Your task to perform on an android device: turn off location history Image 0: 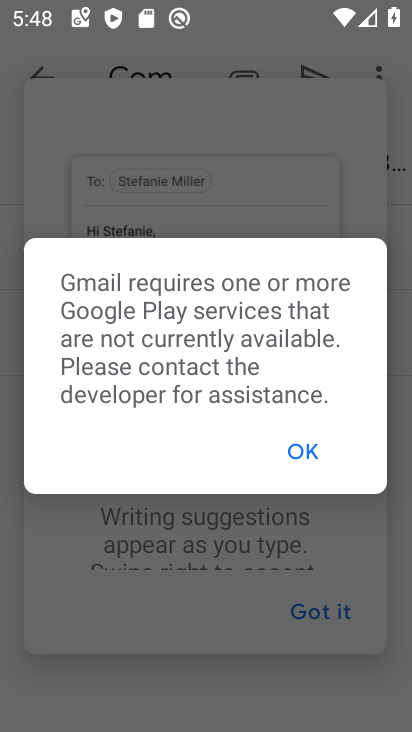
Step 0: press home button
Your task to perform on an android device: turn off location history Image 1: 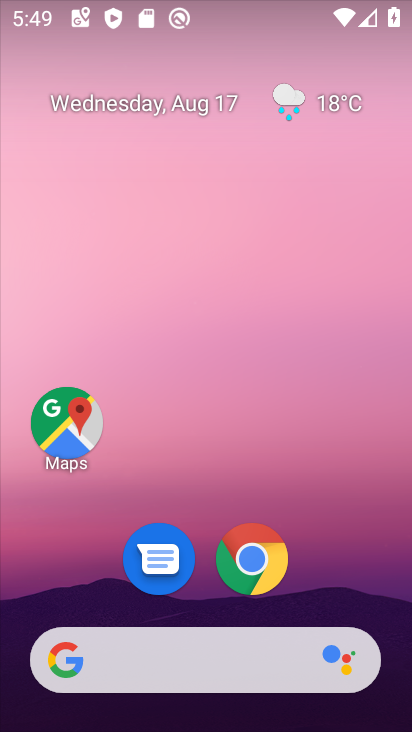
Step 1: drag from (219, 652) to (0, 180)
Your task to perform on an android device: turn off location history Image 2: 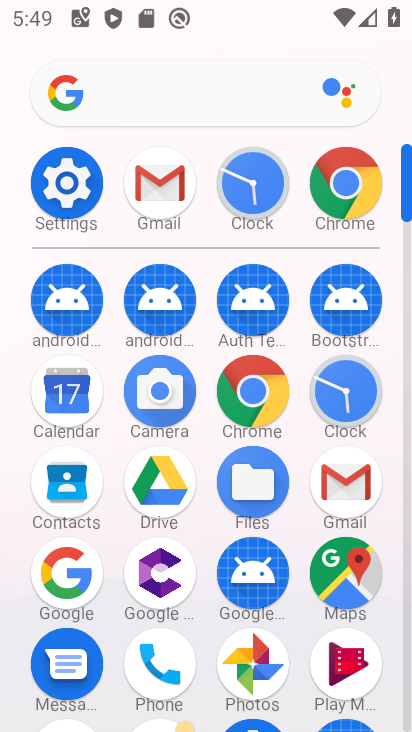
Step 2: click (53, 179)
Your task to perform on an android device: turn off location history Image 3: 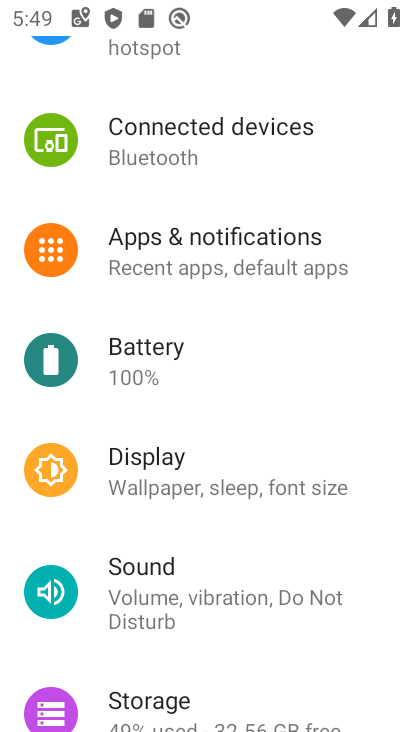
Step 3: drag from (187, 606) to (126, 88)
Your task to perform on an android device: turn off location history Image 4: 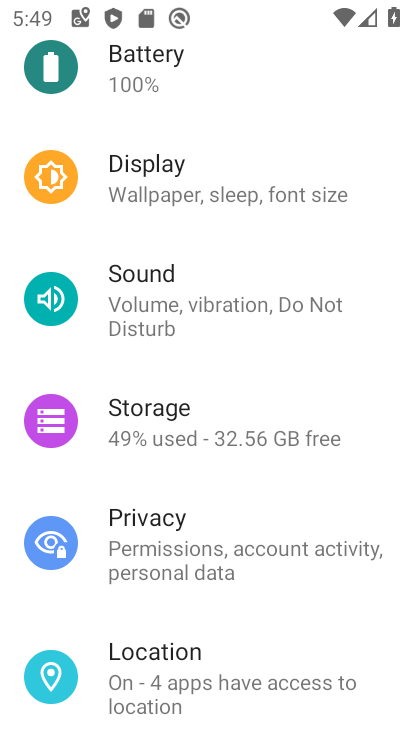
Step 4: click (172, 646)
Your task to perform on an android device: turn off location history Image 5: 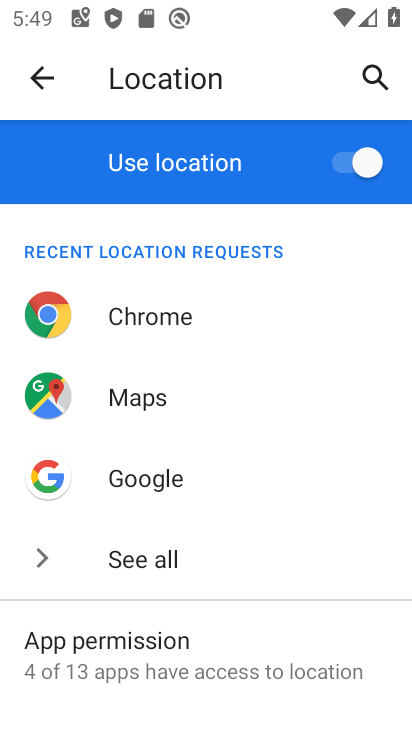
Step 5: drag from (179, 659) to (134, 237)
Your task to perform on an android device: turn off location history Image 6: 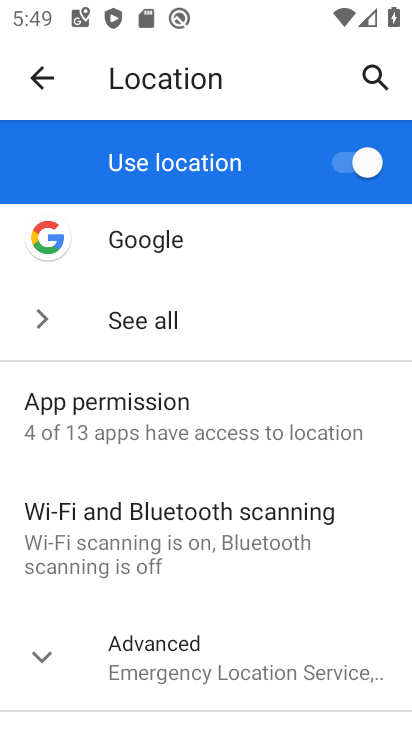
Step 6: click (137, 686)
Your task to perform on an android device: turn off location history Image 7: 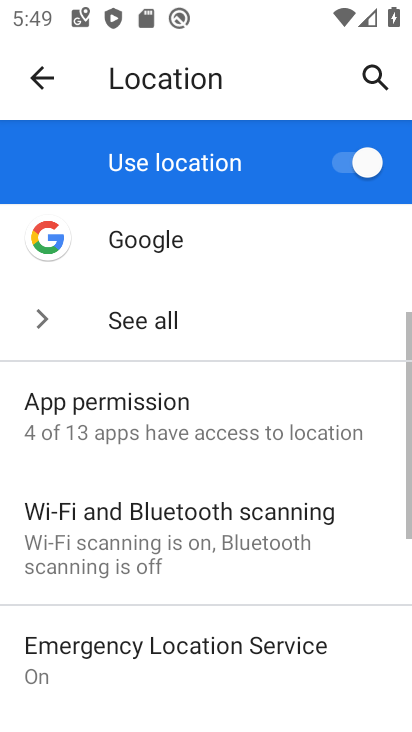
Step 7: drag from (162, 640) to (118, 201)
Your task to perform on an android device: turn off location history Image 8: 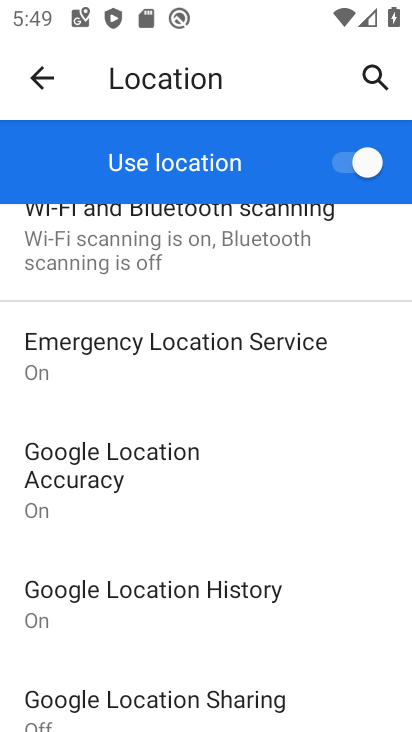
Step 8: click (140, 581)
Your task to perform on an android device: turn off location history Image 9: 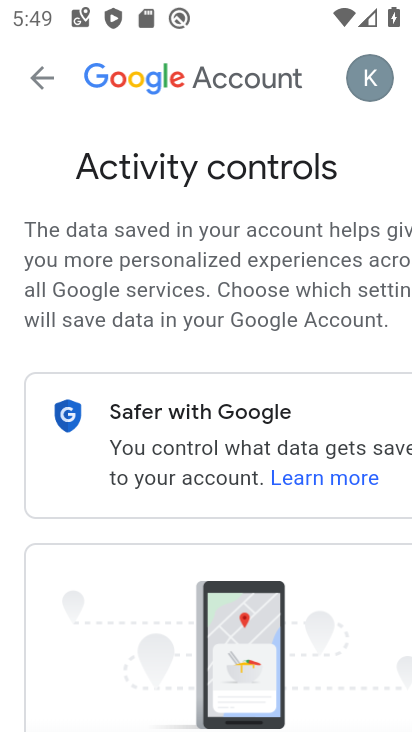
Step 9: drag from (293, 500) to (75, 269)
Your task to perform on an android device: turn off location history Image 10: 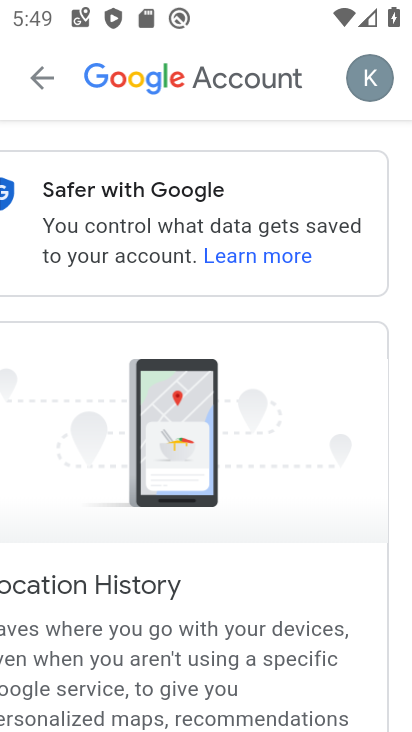
Step 10: drag from (283, 665) to (118, 162)
Your task to perform on an android device: turn off location history Image 11: 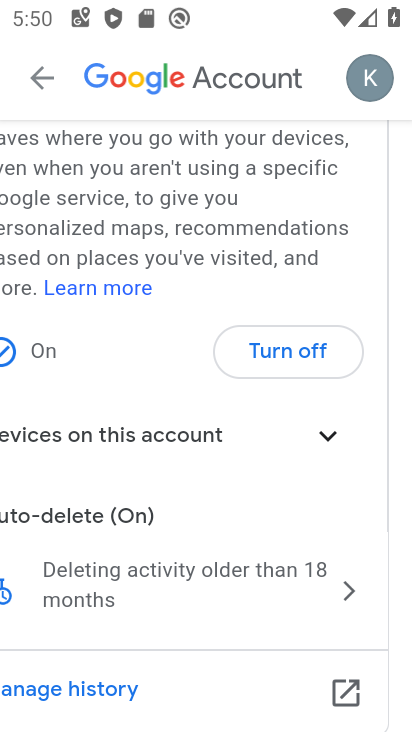
Step 11: click (278, 359)
Your task to perform on an android device: turn off location history Image 12: 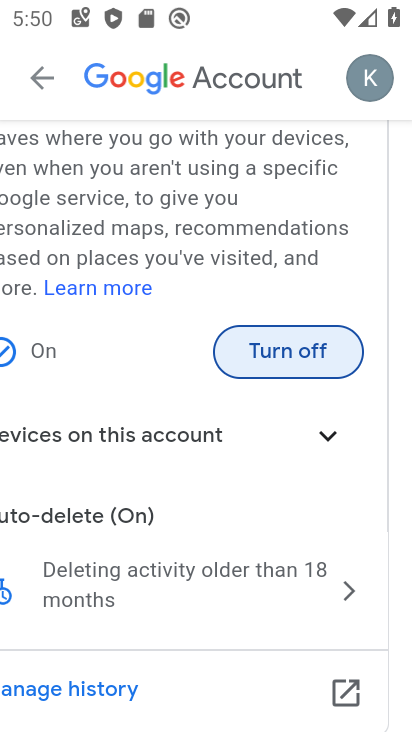
Step 12: click (274, 369)
Your task to perform on an android device: turn off location history Image 13: 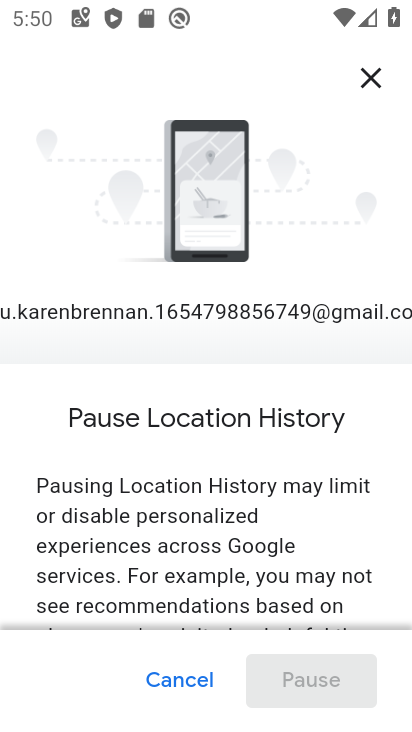
Step 13: drag from (323, 556) to (129, 23)
Your task to perform on an android device: turn off location history Image 14: 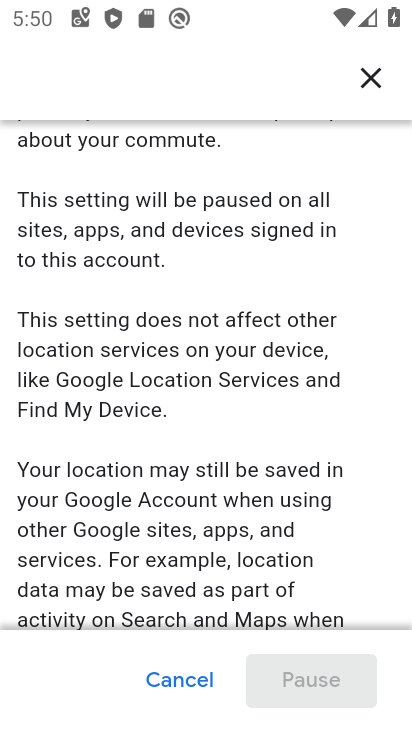
Step 14: drag from (288, 553) to (156, 32)
Your task to perform on an android device: turn off location history Image 15: 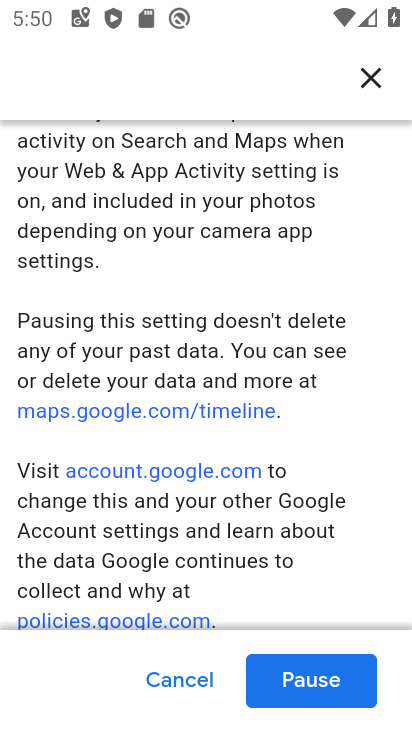
Step 15: drag from (254, 539) to (190, 37)
Your task to perform on an android device: turn off location history Image 16: 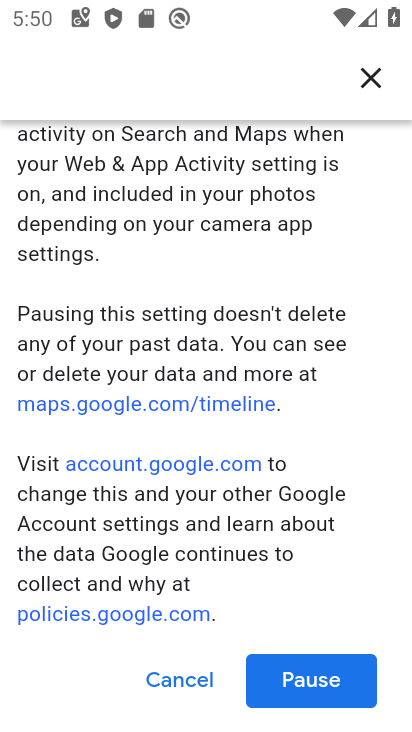
Step 16: click (299, 674)
Your task to perform on an android device: turn off location history Image 17: 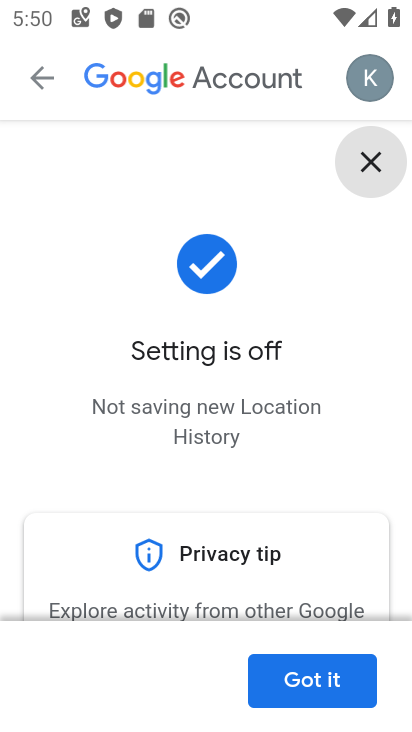
Step 17: click (299, 674)
Your task to perform on an android device: turn off location history Image 18: 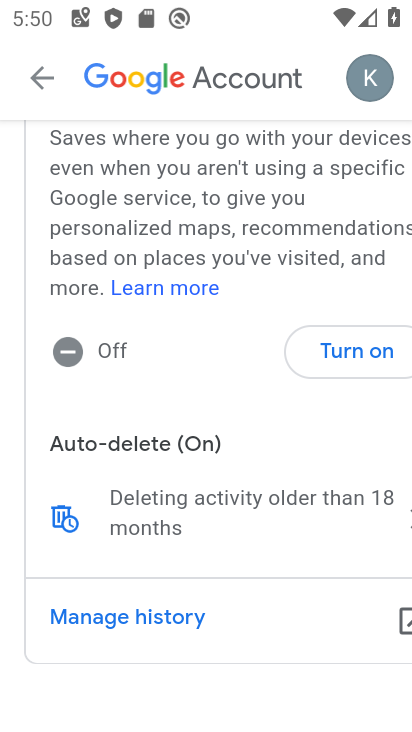
Step 18: task complete